Your task to perform on an android device: turn off smart reply in the gmail app Image 0: 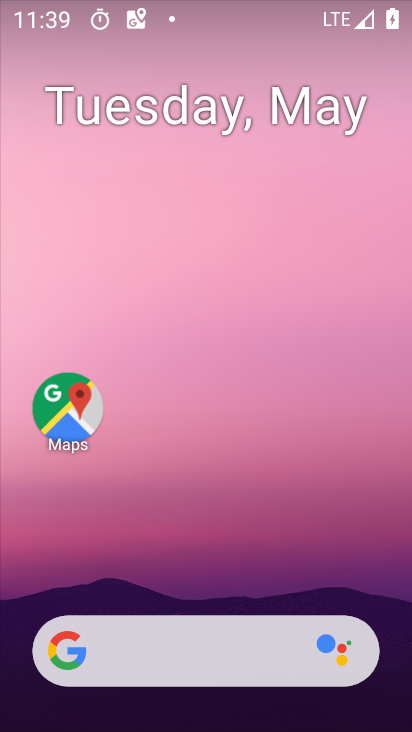
Step 0: drag from (201, 628) to (206, 126)
Your task to perform on an android device: turn off smart reply in the gmail app Image 1: 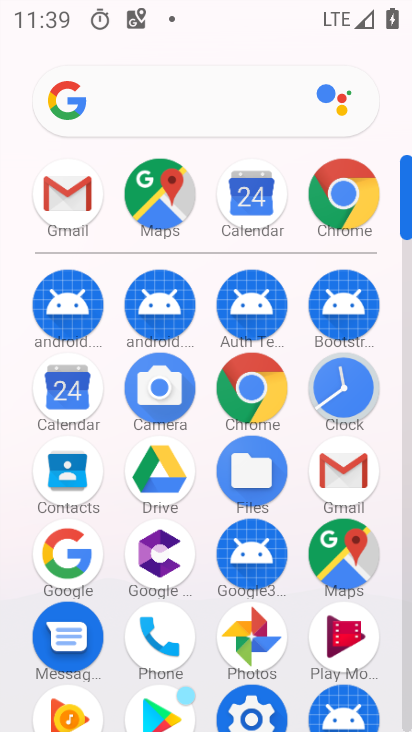
Step 1: click (68, 205)
Your task to perform on an android device: turn off smart reply in the gmail app Image 2: 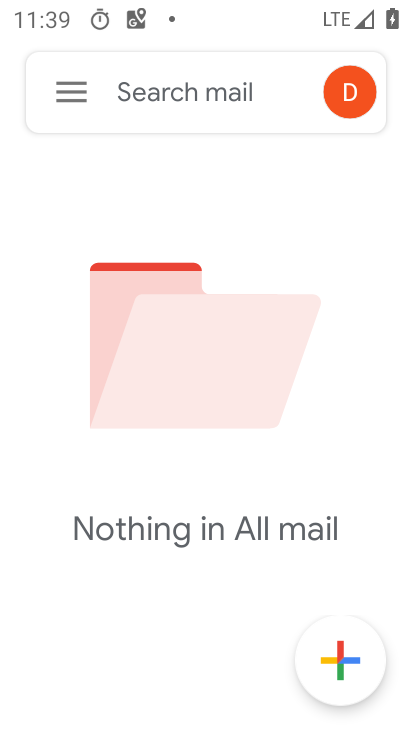
Step 2: click (77, 97)
Your task to perform on an android device: turn off smart reply in the gmail app Image 3: 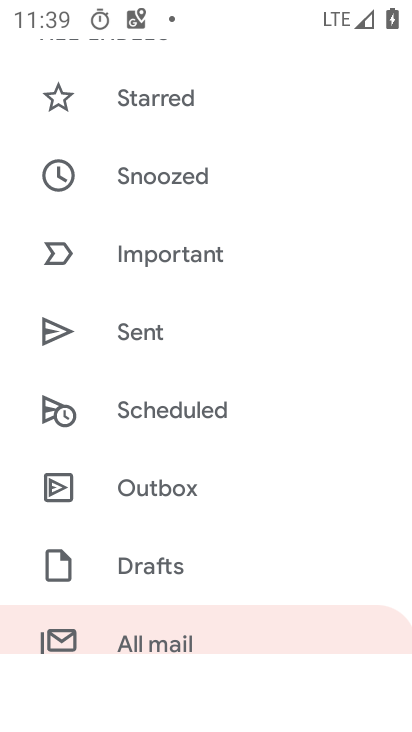
Step 3: drag from (160, 536) to (158, 8)
Your task to perform on an android device: turn off smart reply in the gmail app Image 4: 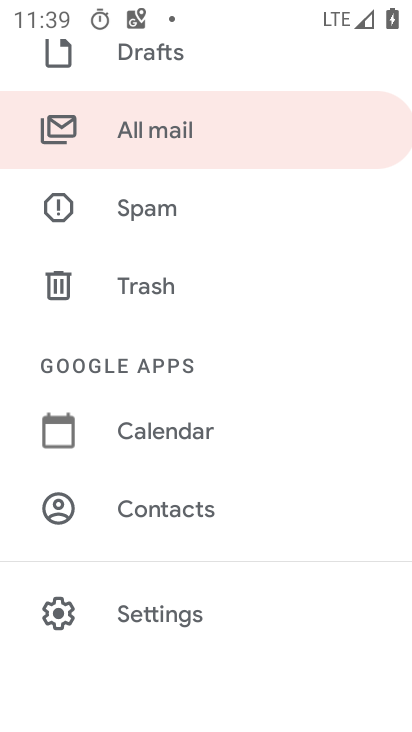
Step 4: click (174, 618)
Your task to perform on an android device: turn off smart reply in the gmail app Image 5: 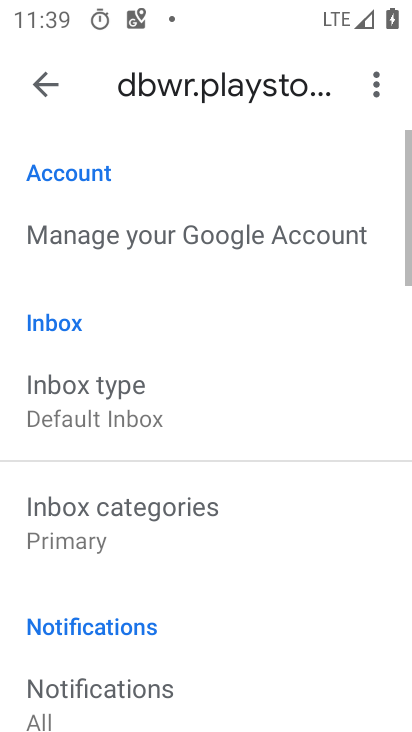
Step 5: drag from (207, 637) to (205, 35)
Your task to perform on an android device: turn off smart reply in the gmail app Image 6: 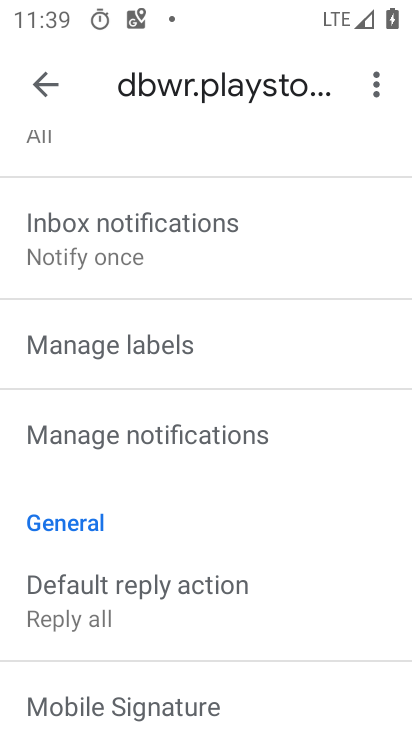
Step 6: drag from (239, 683) to (255, 142)
Your task to perform on an android device: turn off smart reply in the gmail app Image 7: 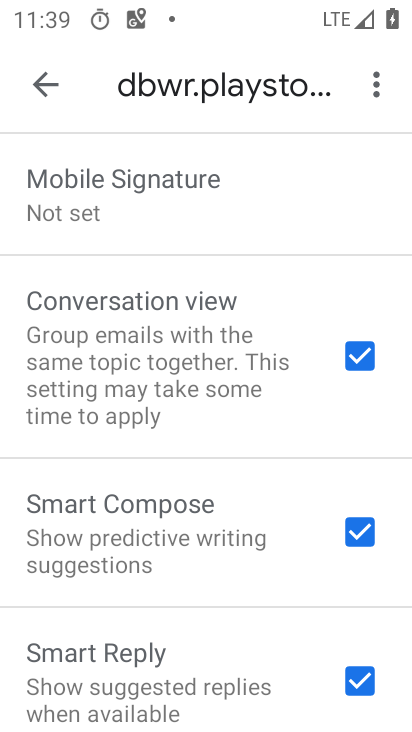
Step 7: click (348, 679)
Your task to perform on an android device: turn off smart reply in the gmail app Image 8: 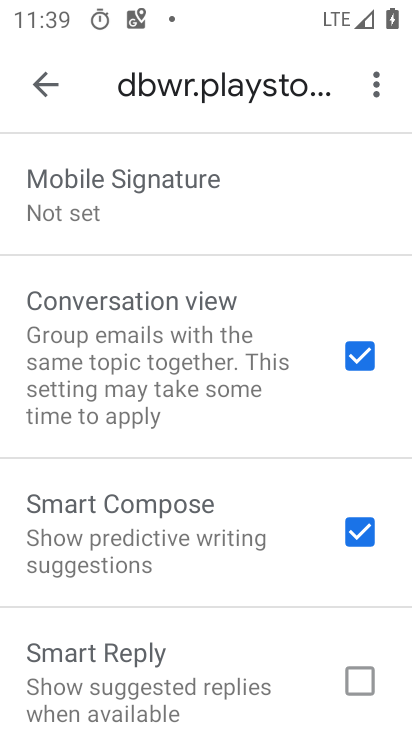
Step 8: task complete